Your task to perform on an android device: Turn off the flashlight Image 0: 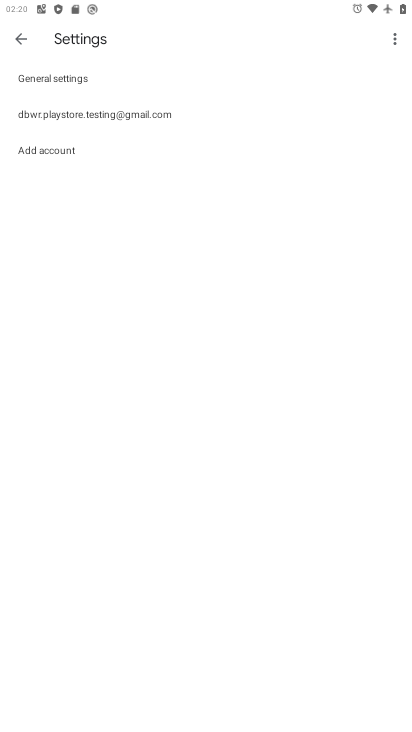
Step 0: drag from (193, 8) to (192, 305)
Your task to perform on an android device: Turn off the flashlight Image 1: 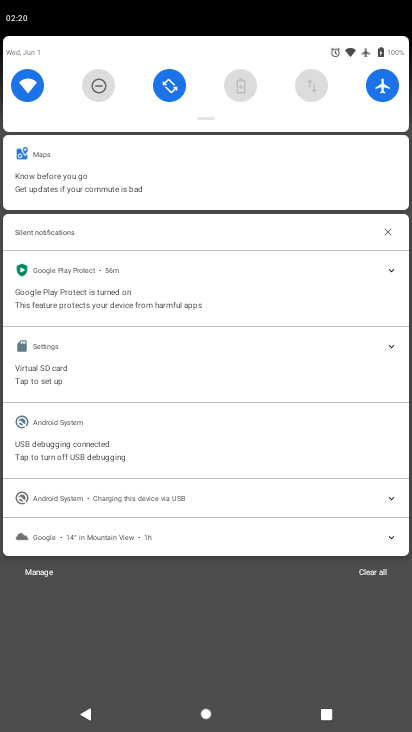
Step 1: drag from (211, 118) to (247, 456)
Your task to perform on an android device: Turn off the flashlight Image 2: 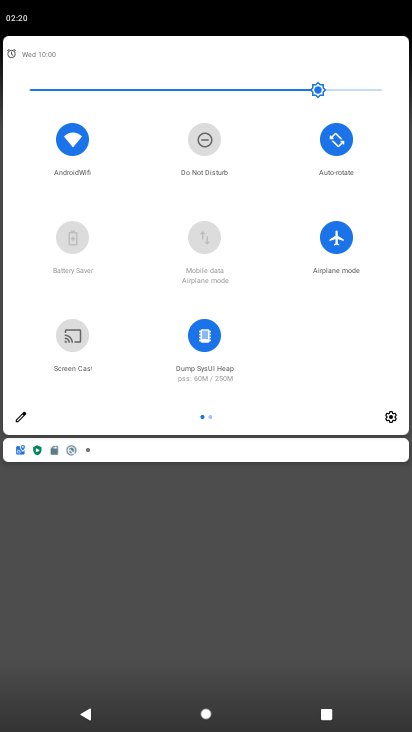
Step 2: drag from (361, 357) to (3, 398)
Your task to perform on an android device: Turn off the flashlight Image 3: 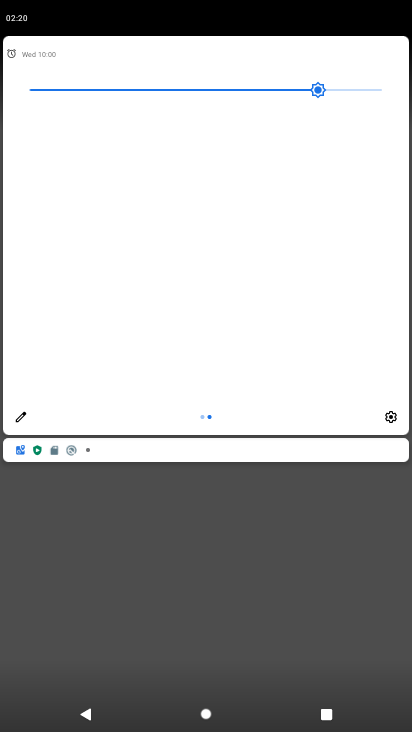
Step 3: click (31, 418)
Your task to perform on an android device: Turn off the flashlight Image 4: 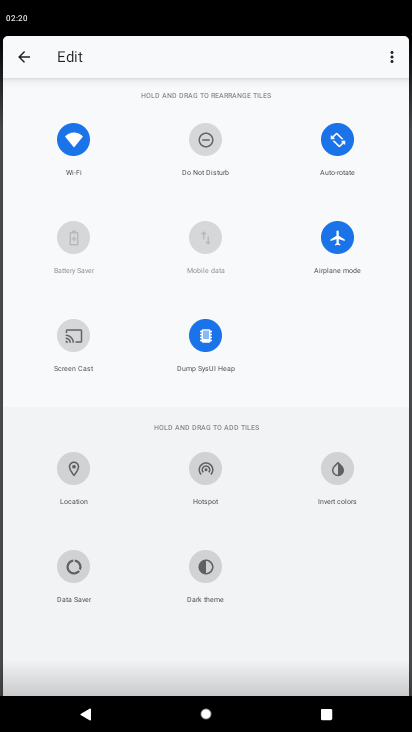
Step 4: task complete